Your task to perform on an android device: Turn off the flashlight Image 0: 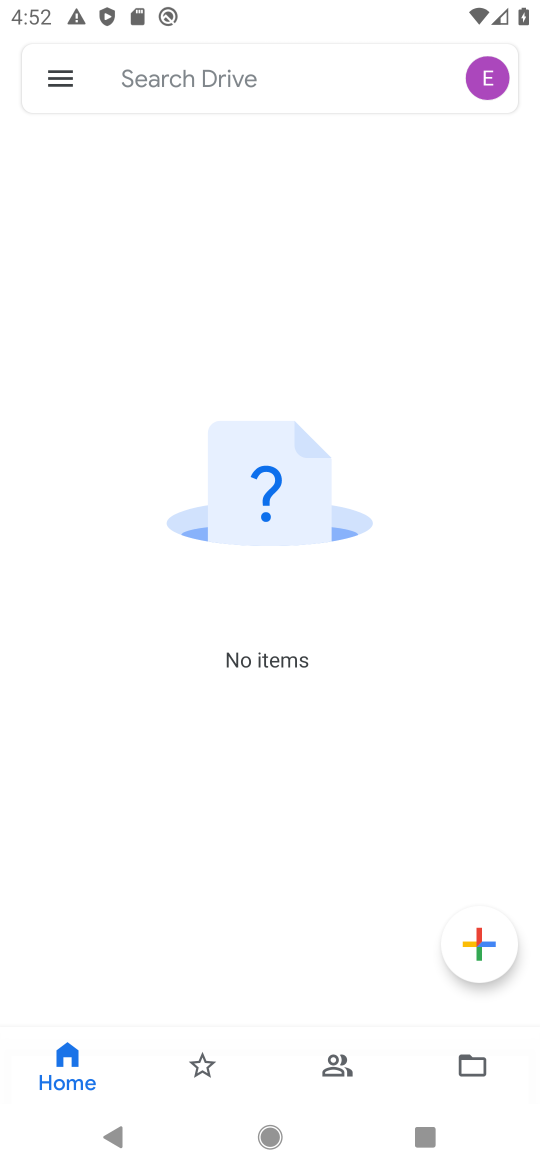
Step 0: press home button
Your task to perform on an android device: Turn off the flashlight Image 1: 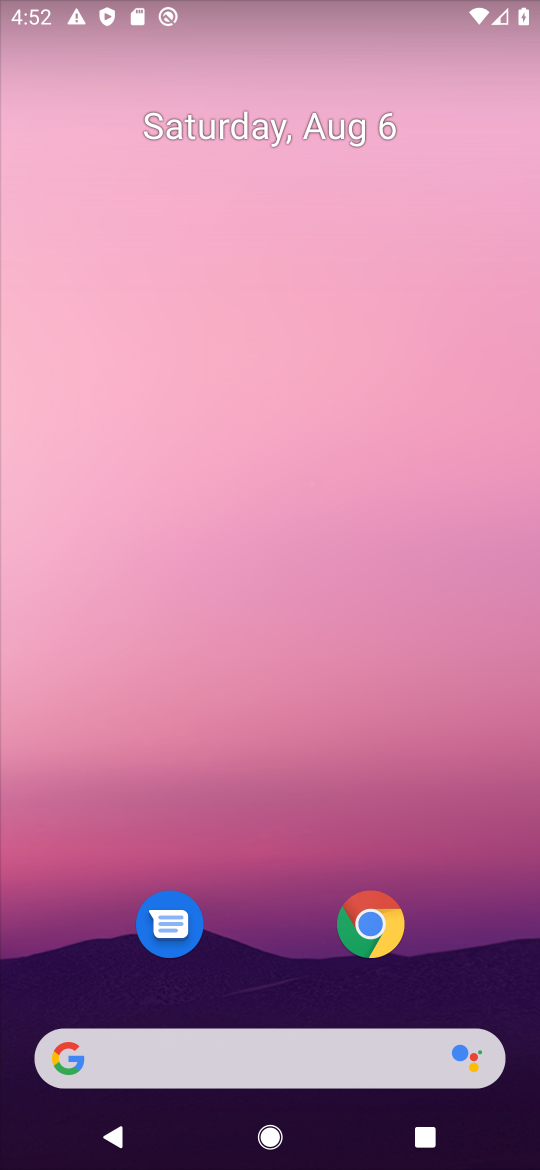
Step 1: task complete